Your task to perform on an android device: turn pop-ups off in chrome Image 0: 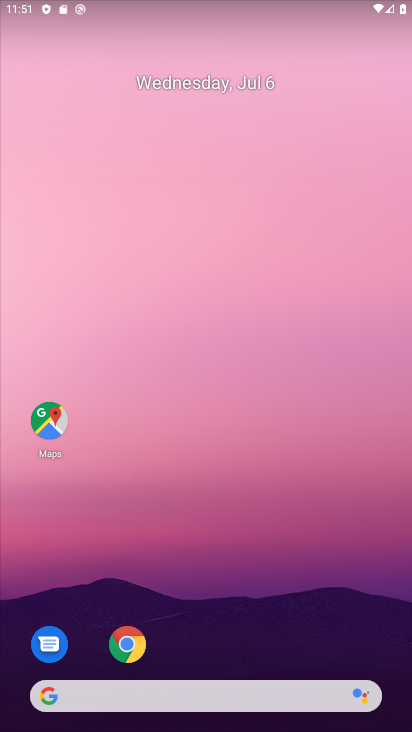
Step 0: click (129, 652)
Your task to perform on an android device: turn pop-ups off in chrome Image 1: 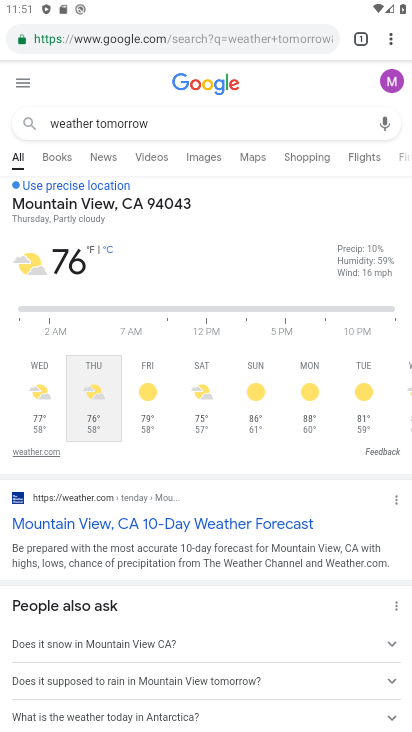
Step 1: click (396, 40)
Your task to perform on an android device: turn pop-ups off in chrome Image 2: 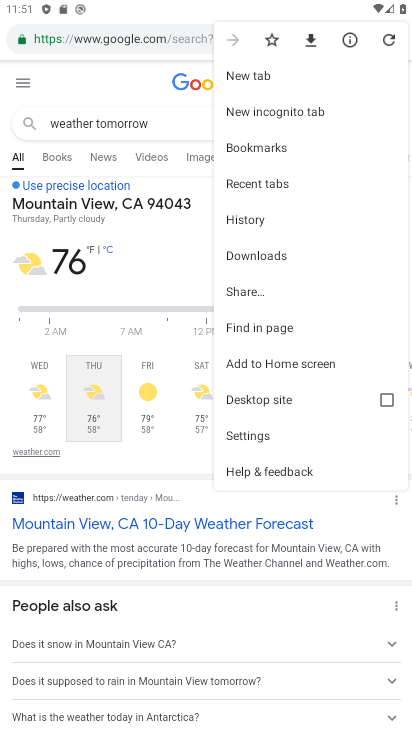
Step 2: click (291, 434)
Your task to perform on an android device: turn pop-ups off in chrome Image 3: 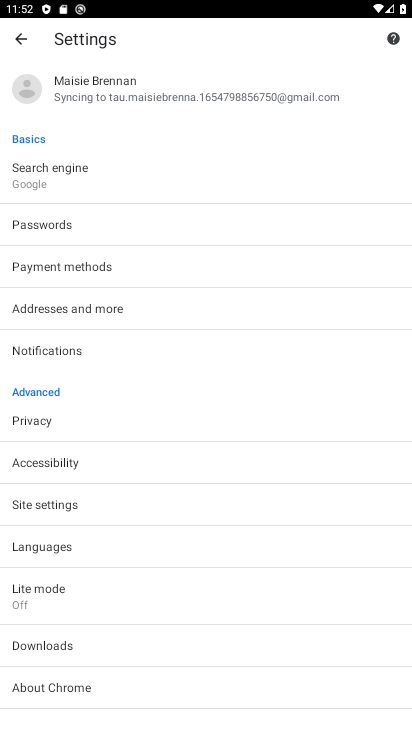
Step 3: click (95, 509)
Your task to perform on an android device: turn pop-ups off in chrome Image 4: 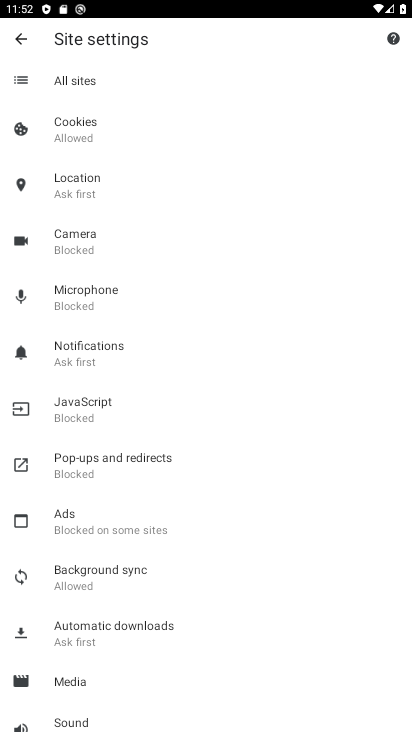
Step 4: click (162, 455)
Your task to perform on an android device: turn pop-ups off in chrome Image 5: 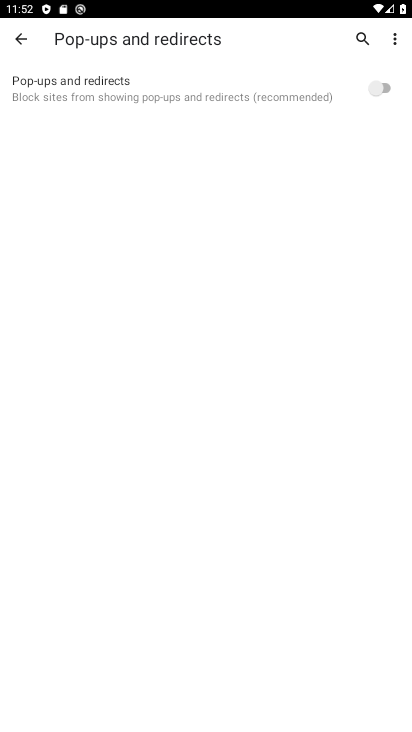
Step 5: task complete